Your task to perform on an android device: refresh tabs in the chrome app Image 0: 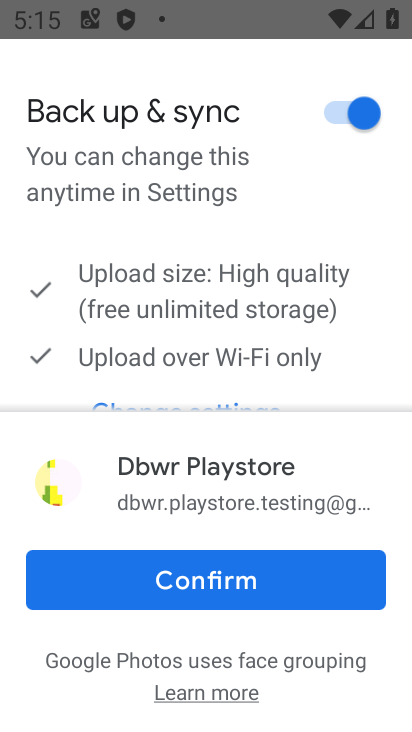
Step 0: press home button
Your task to perform on an android device: refresh tabs in the chrome app Image 1: 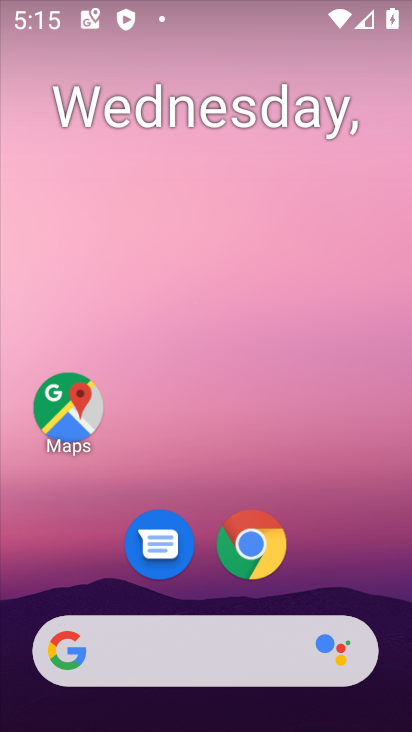
Step 1: click (241, 544)
Your task to perform on an android device: refresh tabs in the chrome app Image 2: 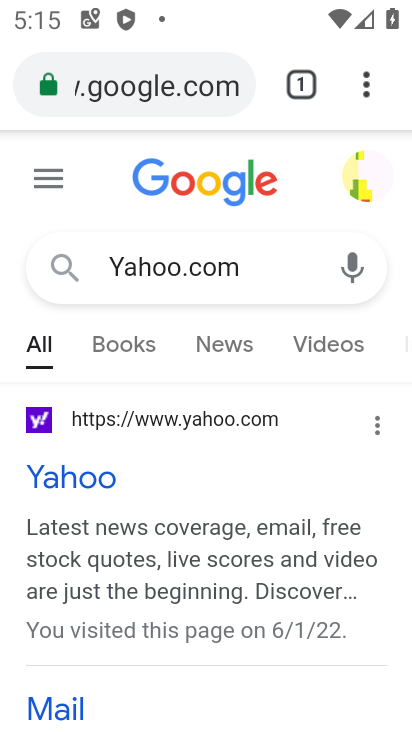
Step 2: click (367, 88)
Your task to perform on an android device: refresh tabs in the chrome app Image 3: 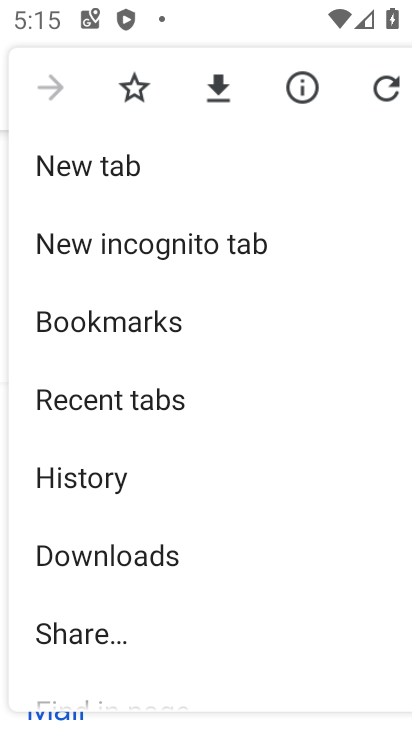
Step 3: click (387, 92)
Your task to perform on an android device: refresh tabs in the chrome app Image 4: 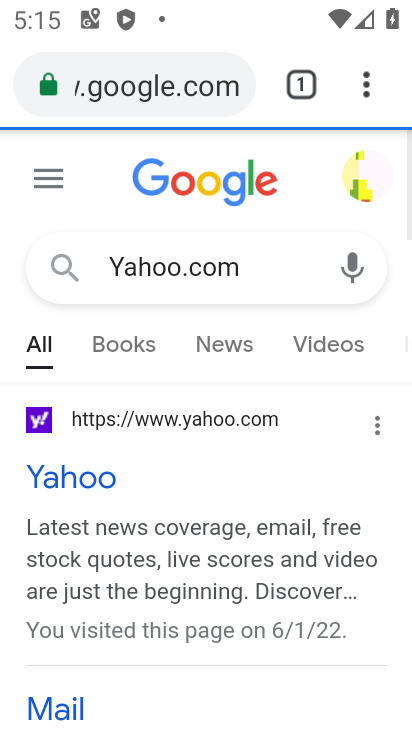
Step 4: task complete